Your task to perform on an android device: Open Google Chrome and click the shortcut for Amazon.com Image 0: 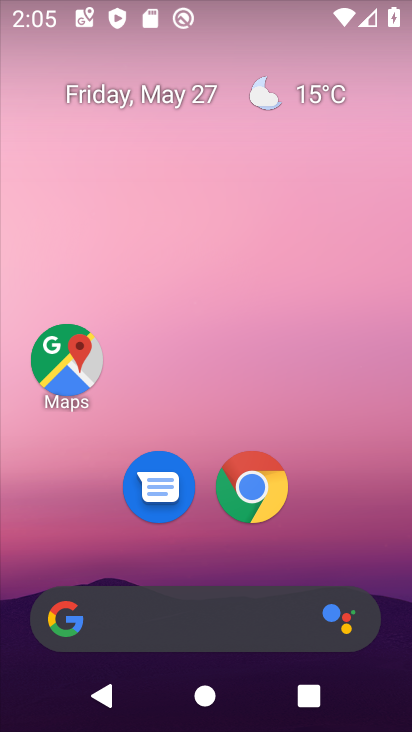
Step 0: click (254, 488)
Your task to perform on an android device: Open Google Chrome and click the shortcut for Amazon.com Image 1: 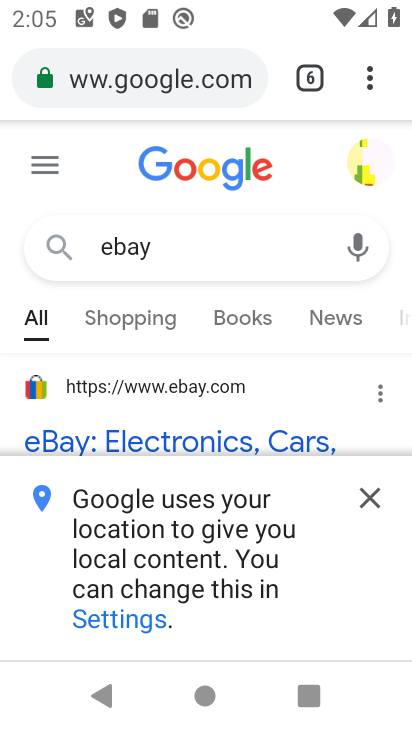
Step 1: click (302, 78)
Your task to perform on an android device: Open Google Chrome and click the shortcut for Amazon.com Image 2: 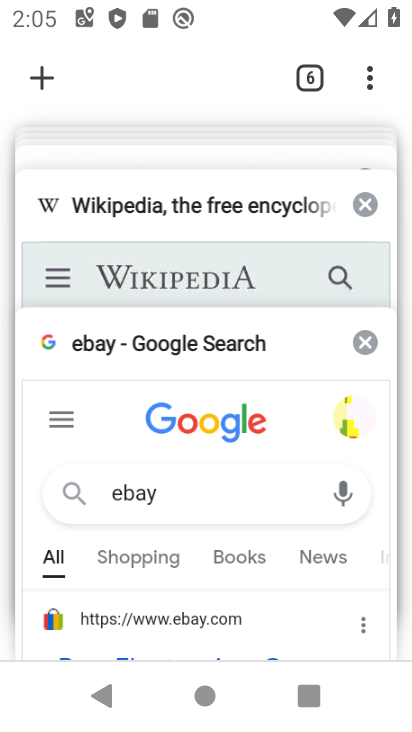
Step 2: click (49, 89)
Your task to perform on an android device: Open Google Chrome and click the shortcut for Amazon.com Image 3: 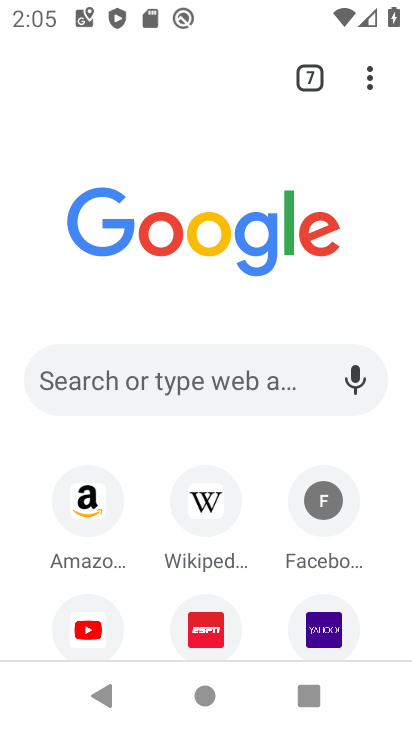
Step 3: click (99, 508)
Your task to perform on an android device: Open Google Chrome and click the shortcut for Amazon.com Image 4: 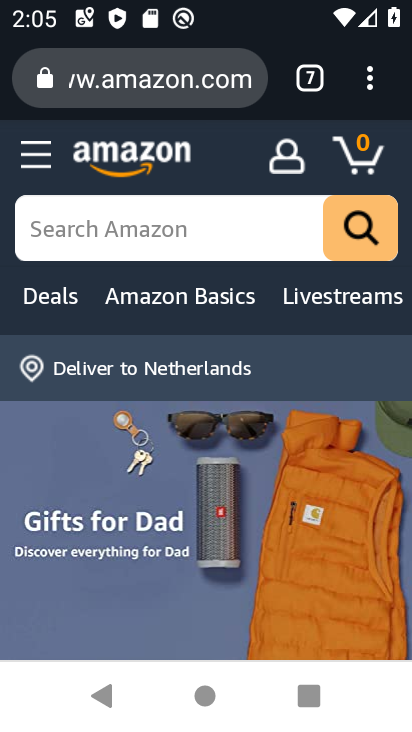
Step 4: task complete